Your task to perform on an android device: turn on improve location accuracy Image 0: 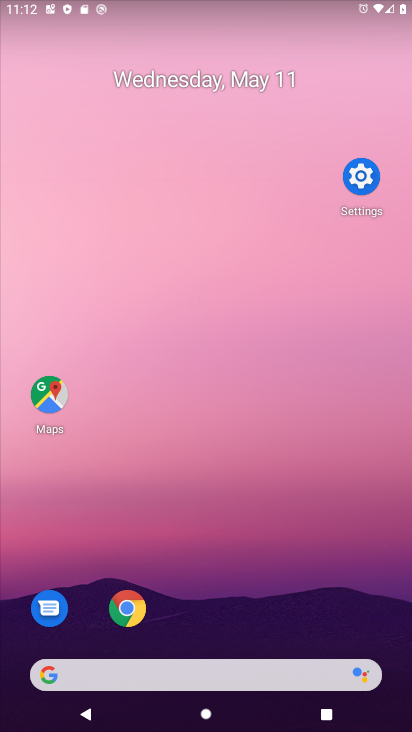
Step 0: click (168, 106)
Your task to perform on an android device: turn on improve location accuracy Image 1: 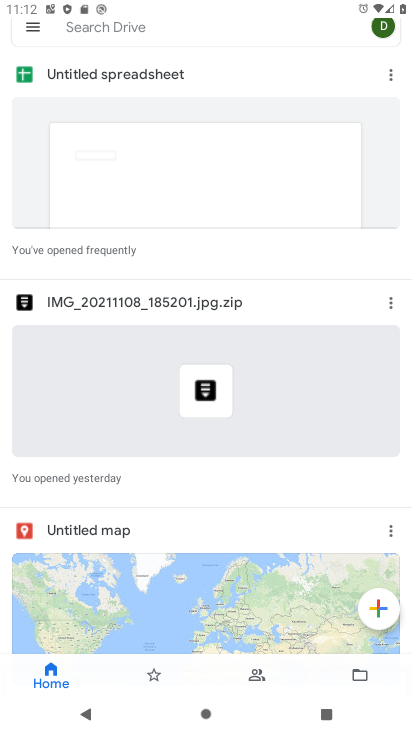
Step 1: press back button
Your task to perform on an android device: turn on improve location accuracy Image 2: 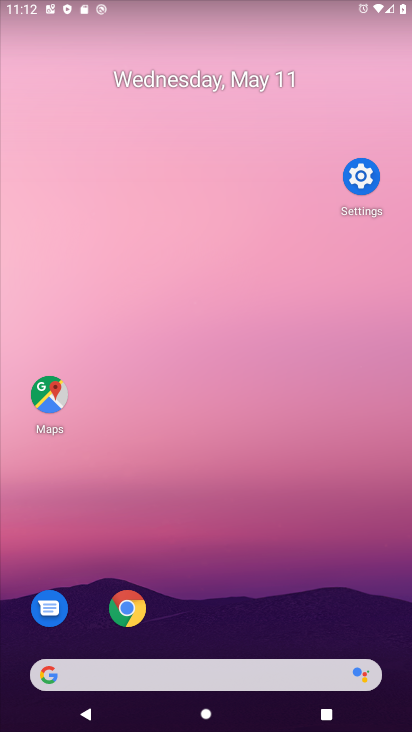
Step 2: drag from (258, 533) to (168, 138)
Your task to perform on an android device: turn on improve location accuracy Image 3: 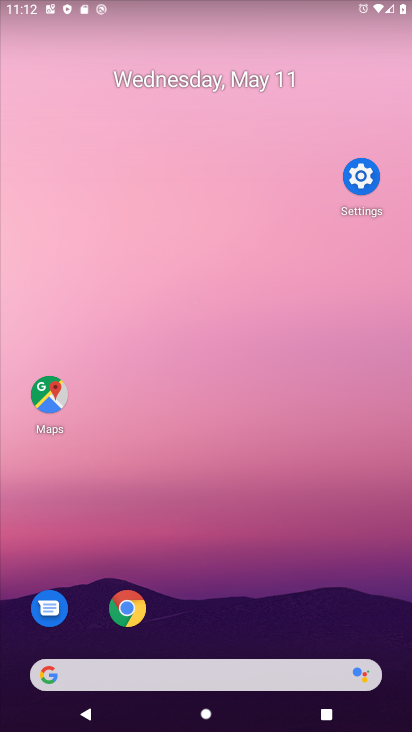
Step 3: drag from (194, 559) to (76, 5)
Your task to perform on an android device: turn on improve location accuracy Image 4: 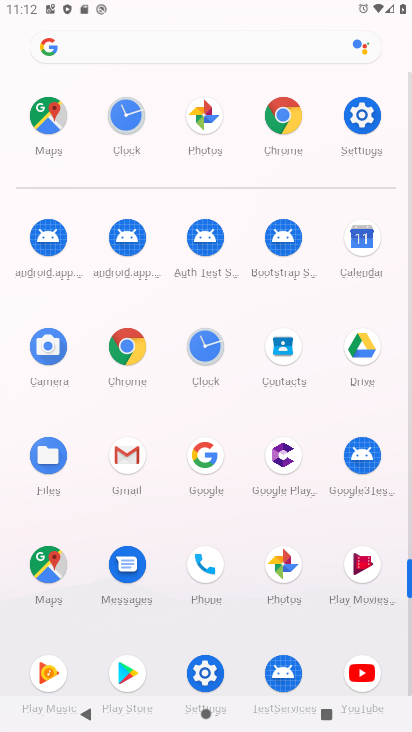
Step 4: click (353, 129)
Your task to perform on an android device: turn on improve location accuracy Image 5: 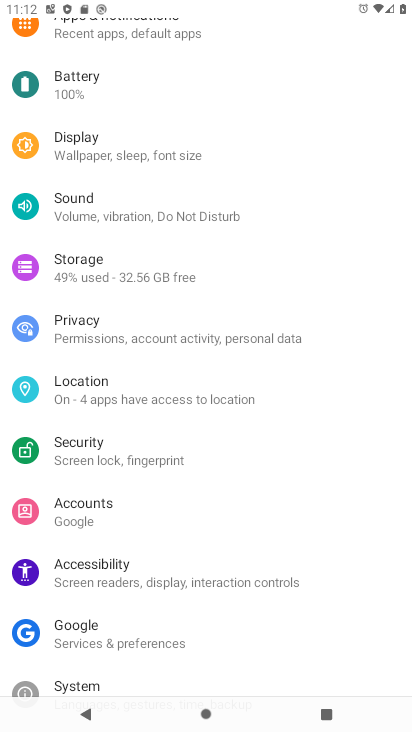
Step 5: drag from (103, 574) to (128, 122)
Your task to perform on an android device: turn on improve location accuracy Image 6: 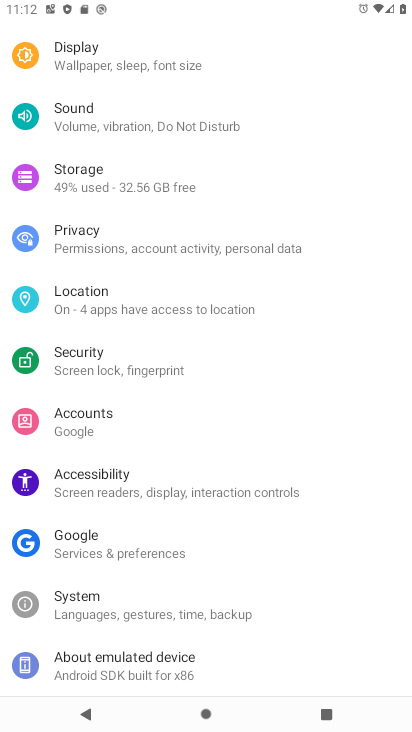
Step 6: click (115, 297)
Your task to perform on an android device: turn on improve location accuracy Image 7: 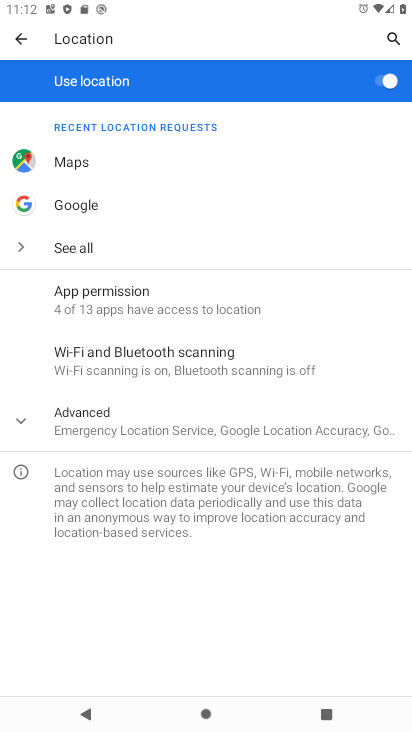
Step 7: click (85, 304)
Your task to perform on an android device: turn on improve location accuracy Image 8: 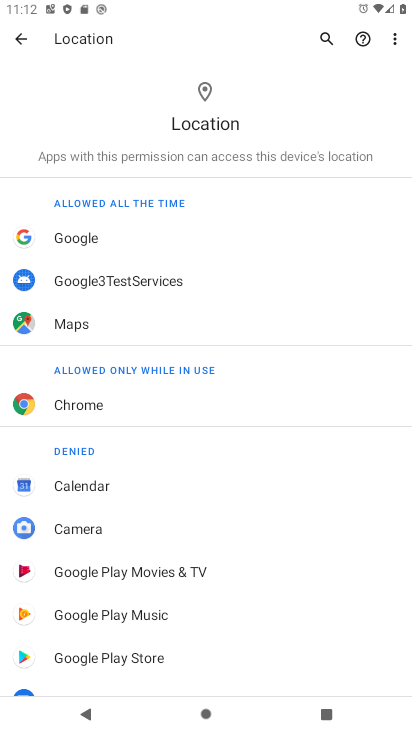
Step 8: click (23, 40)
Your task to perform on an android device: turn on improve location accuracy Image 9: 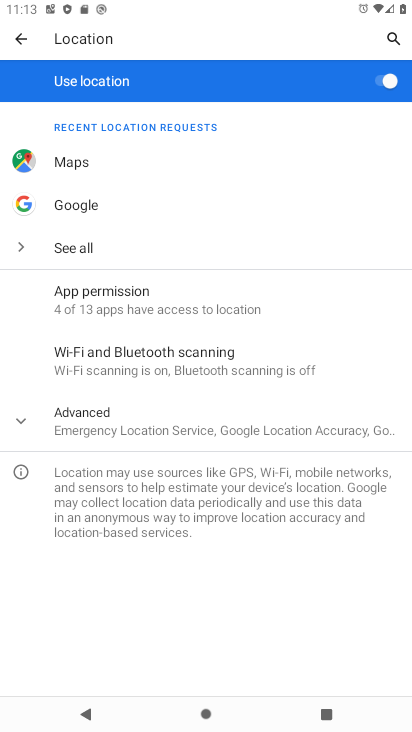
Step 9: click (89, 422)
Your task to perform on an android device: turn on improve location accuracy Image 10: 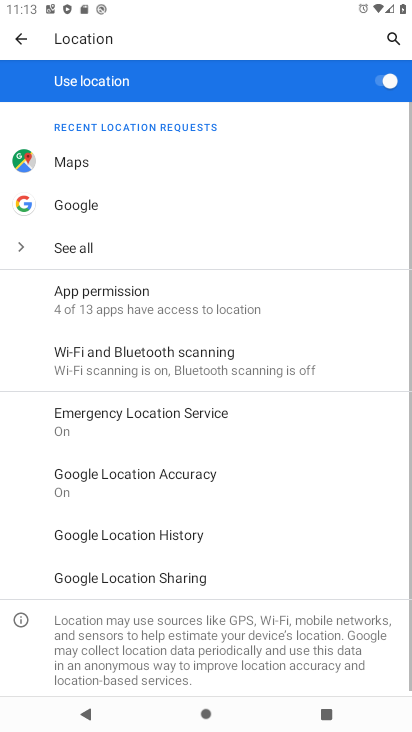
Step 10: drag from (203, 533) to (225, 172)
Your task to perform on an android device: turn on improve location accuracy Image 11: 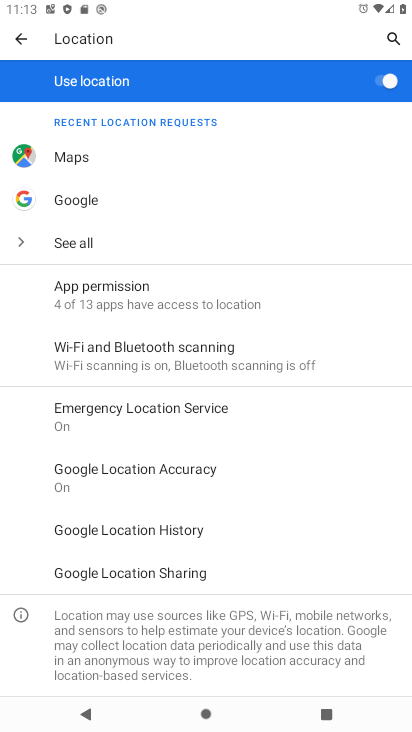
Step 11: click (154, 463)
Your task to perform on an android device: turn on improve location accuracy Image 12: 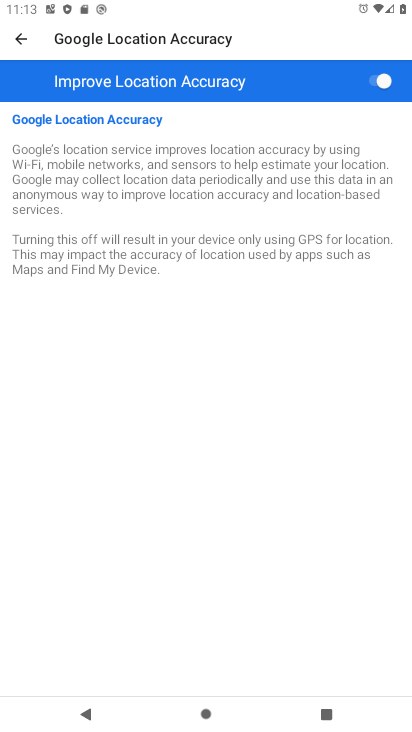
Step 12: task complete